Your task to perform on an android device: Open Wikipedia Image 0: 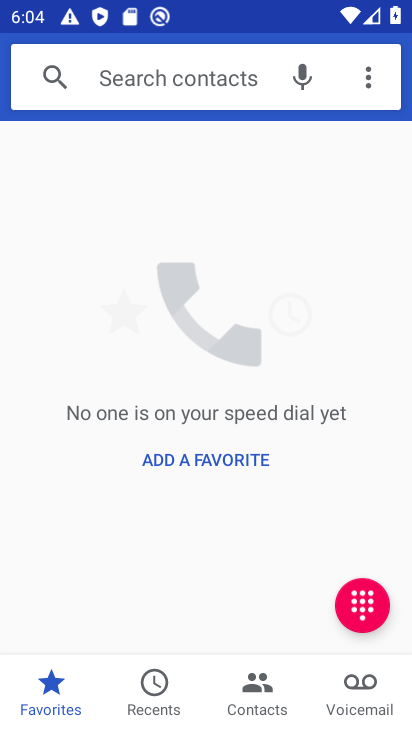
Step 0: press home button
Your task to perform on an android device: Open Wikipedia Image 1: 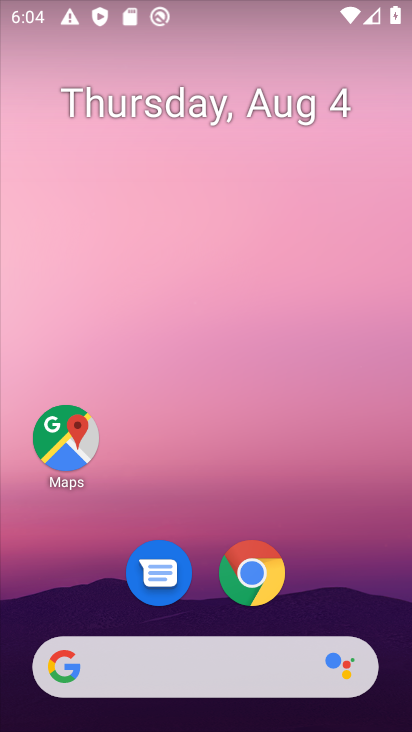
Step 1: click (65, 667)
Your task to perform on an android device: Open Wikipedia Image 2: 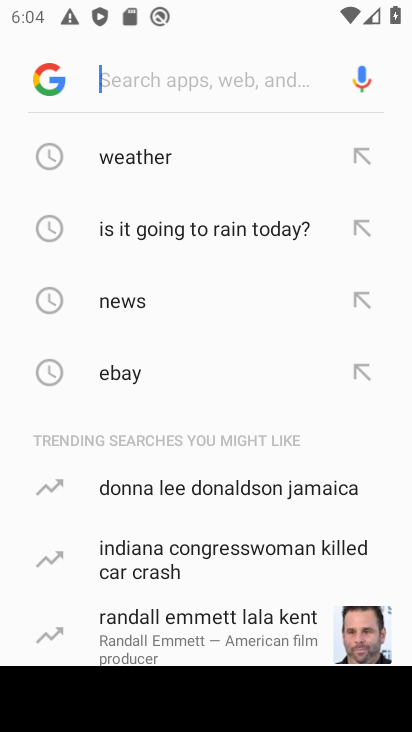
Step 2: type "Wikipedia"
Your task to perform on an android device: Open Wikipedia Image 3: 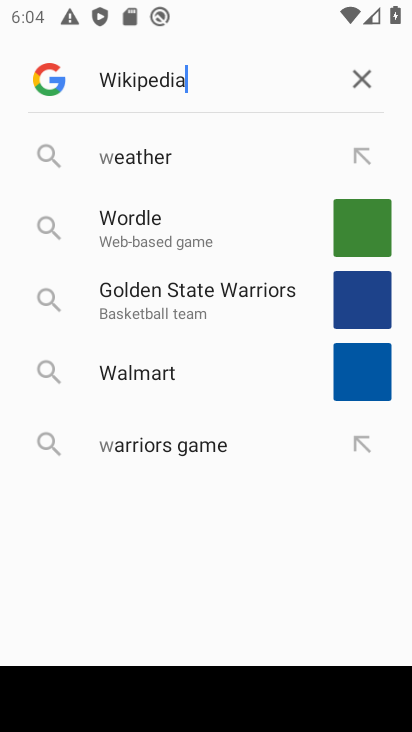
Step 3: press enter
Your task to perform on an android device: Open Wikipedia Image 4: 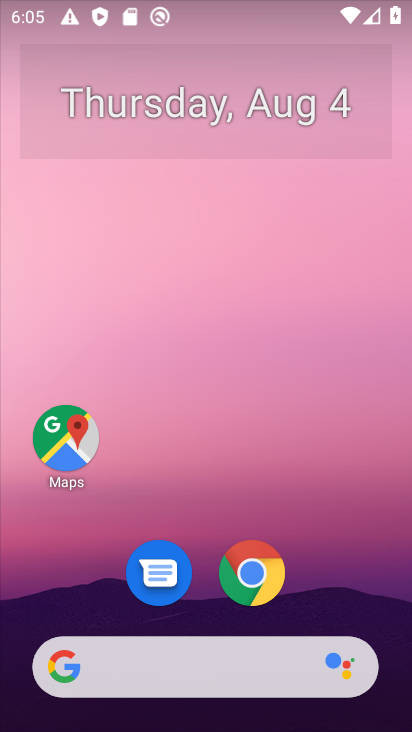
Step 4: click (66, 673)
Your task to perform on an android device: Open Wikipedia Image 5: 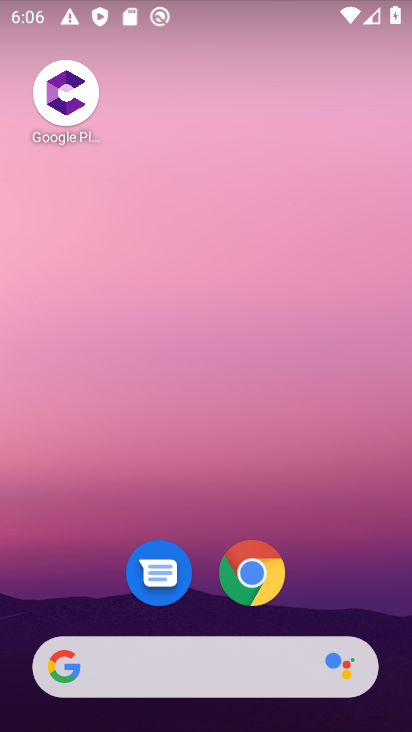
Step 5: click (67, 667)
Your task to perform on an android device: Open Wikipedia Image 6: 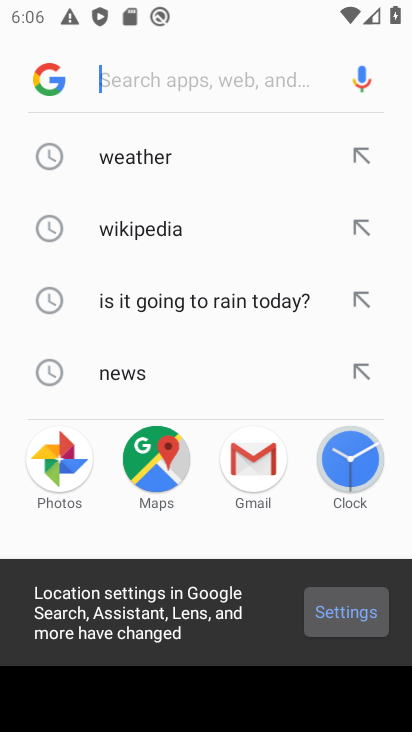
Step 6: click (149, 236)
Your task to perform on an android device: Open Wikipedia Image 7: 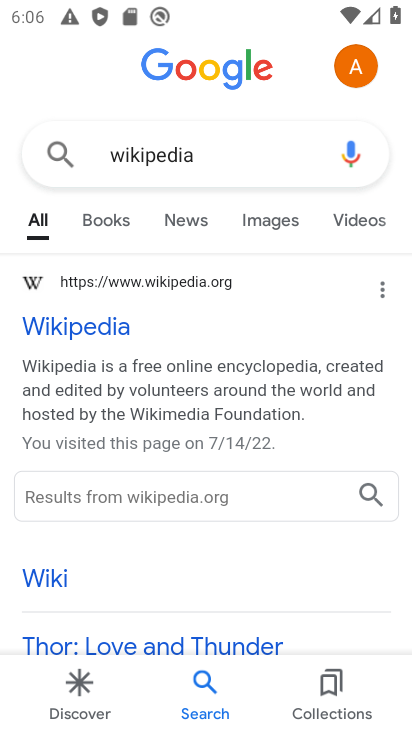
Step 7: click (93, 325)
Your task to perform on an android device: Open Wikipedia Image 8: 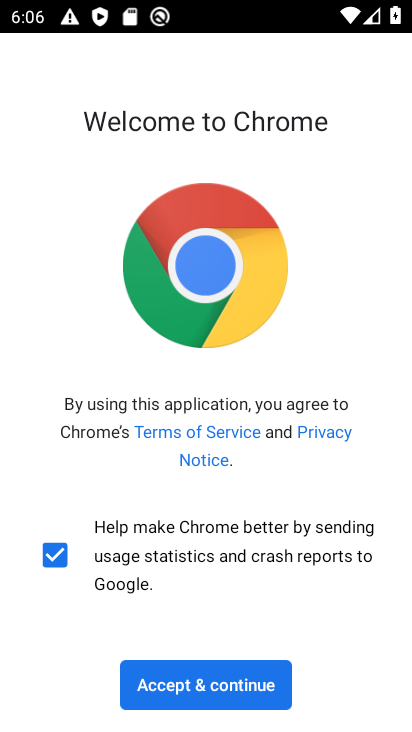
Step 8: click (212, 691)
Your task to perform on an android device: Open Wikipedia Image 9: 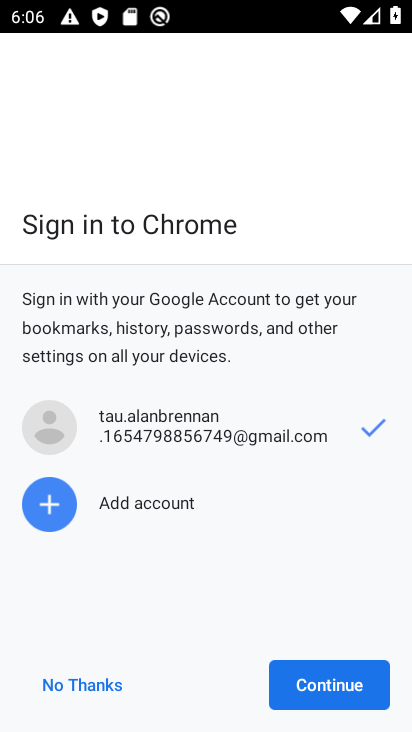
Step 9: click (332, 686)
Your task to perform on an android device: Open Wikipedia Image 10: 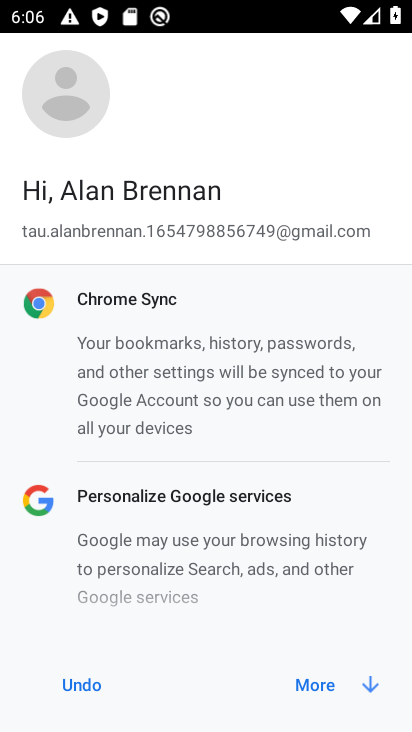
Step 10: click (332, 686)
Your task to perform on an android device: Open Wikipedia Image 11: 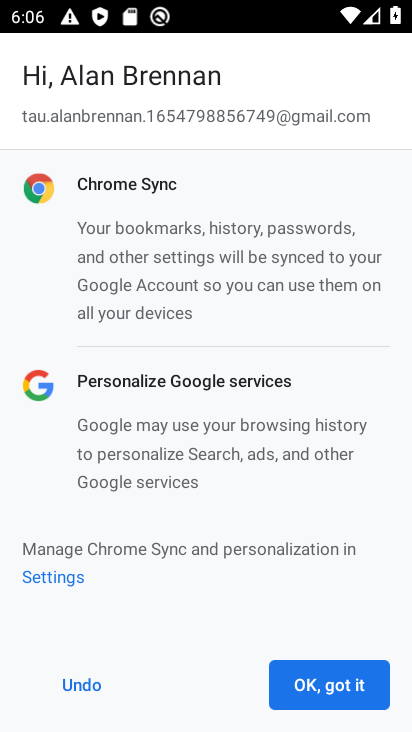
Step 11: click (331, 681)
Your task to perform on an android device: Open Wikipedia Image 12: 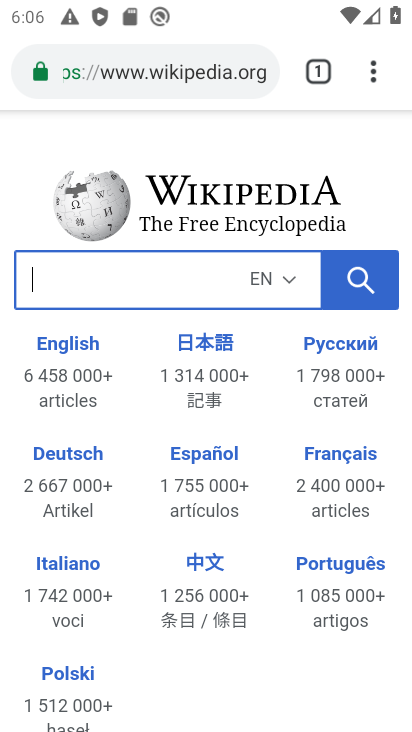
Step 12: task complete